Your task to perform on an android device: Open CNN.com Image 0: 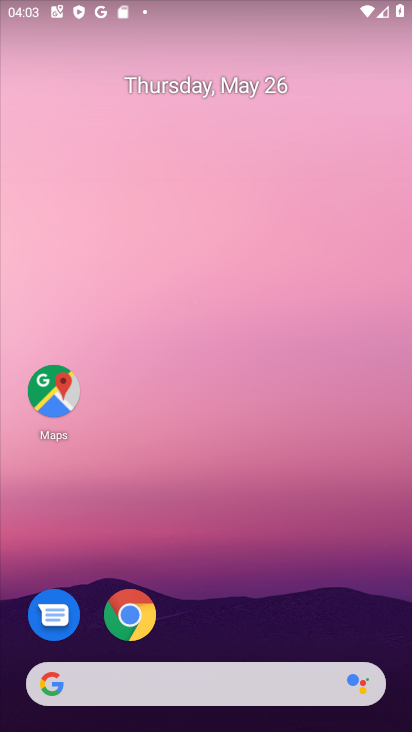
Step 0: click (139, 624)
Your task to perform on an android device: Open CNN.com Image 1: 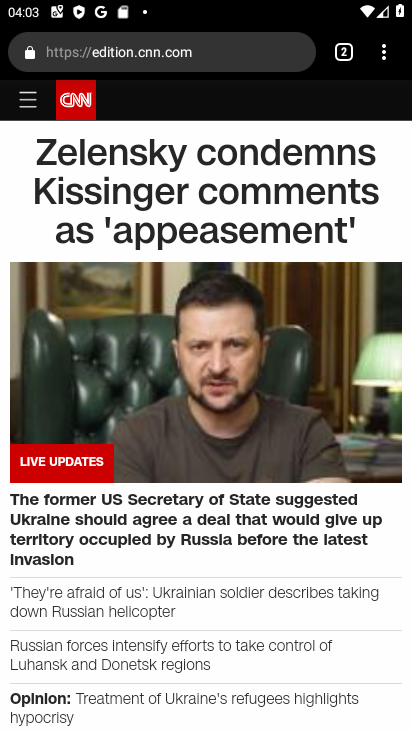
Step 1: task complete